Your task to perform on an android device: What's on my calendar today? Image 0: 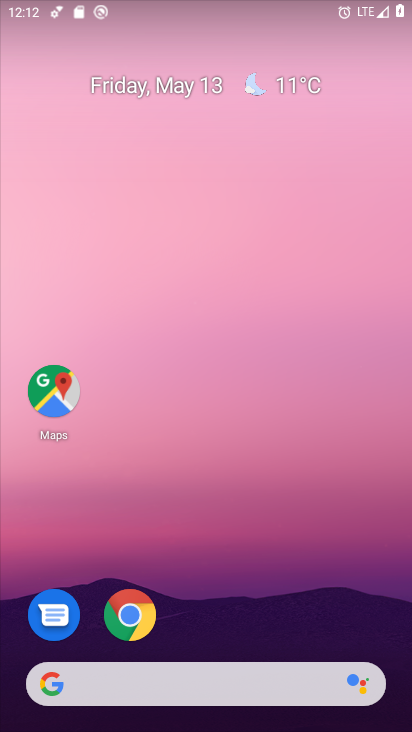
Step 0: drag from (256, 588) to (218, 66)
Your task to perform on an android device: What's on my calendar today? Image 1: 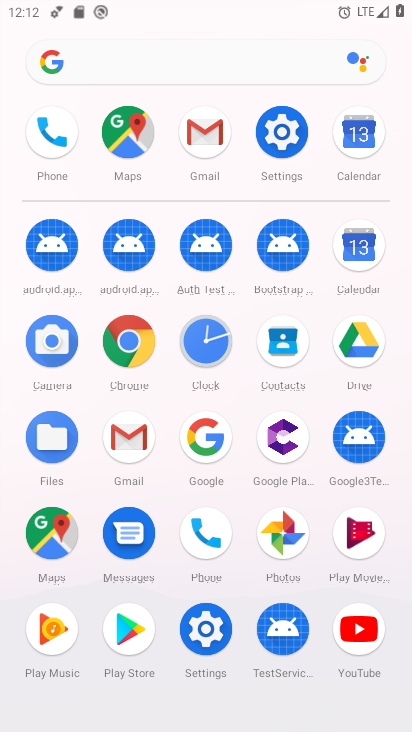
Step 1: click (353, 248)
Your task to perform on an android device: What's on my calendar today? Image 2: 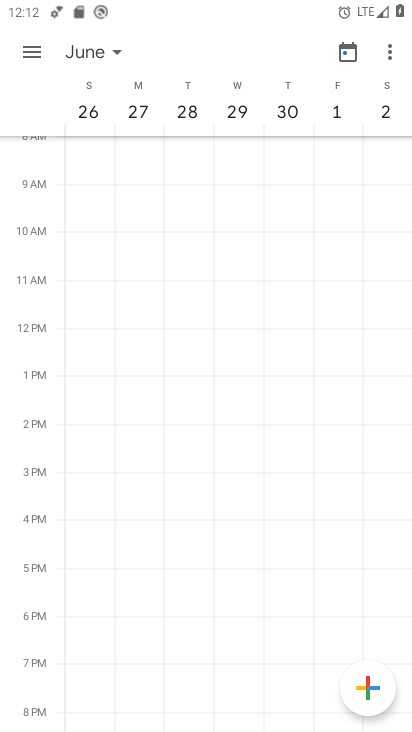
Step 2: click (31, 42)
Your task to perform on an android device: What's on my calendar today? Image 3: 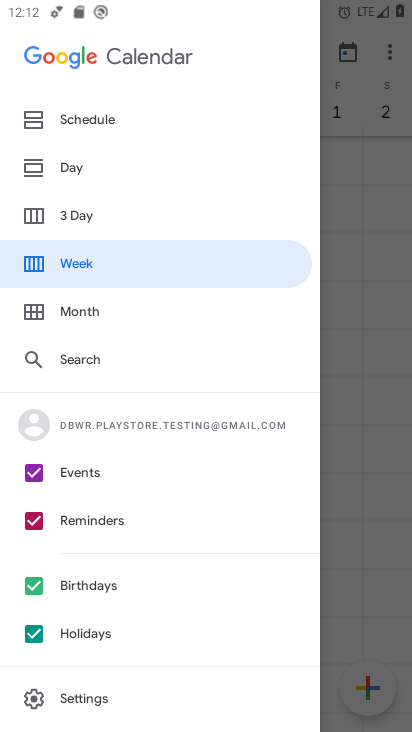
Step 3: click (46, 312)
Your task to perform on an android device: What's on my calendar today? Image 4: 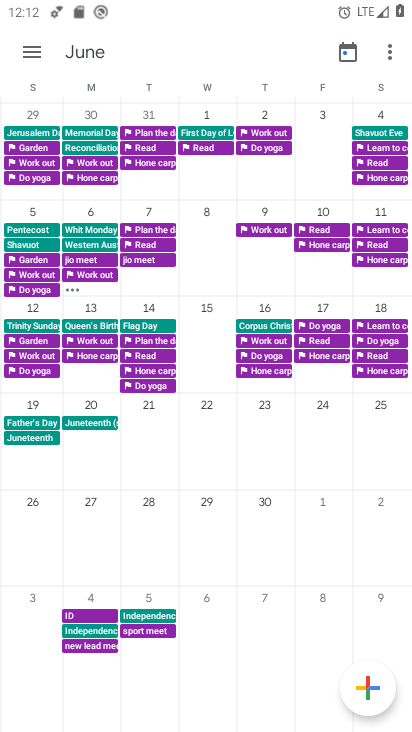
Step 4: drag from (56, 332) to (407, 310)
Your task to perform on an android device: What's on my calendar today? Image 5: 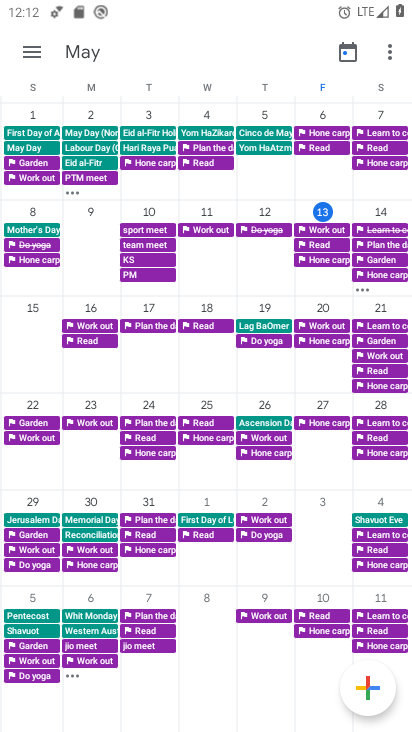
Step 5: click (321, 209)
Your task to perform on an android device: What's on my calendar today? Image 6: 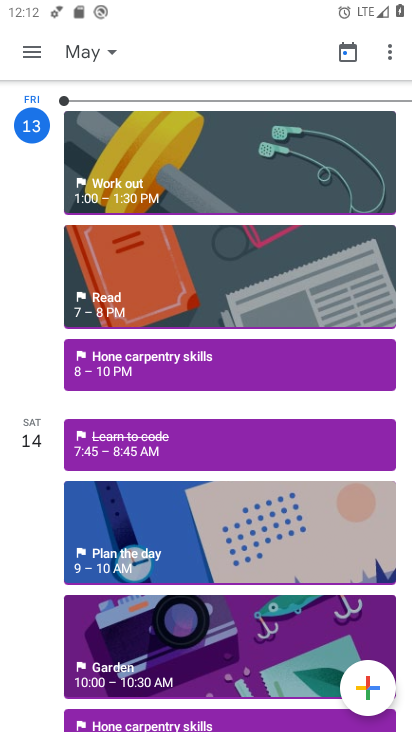
Step 6: task complete